Your task to perform on an android device: Open Wikipedia Image 0: 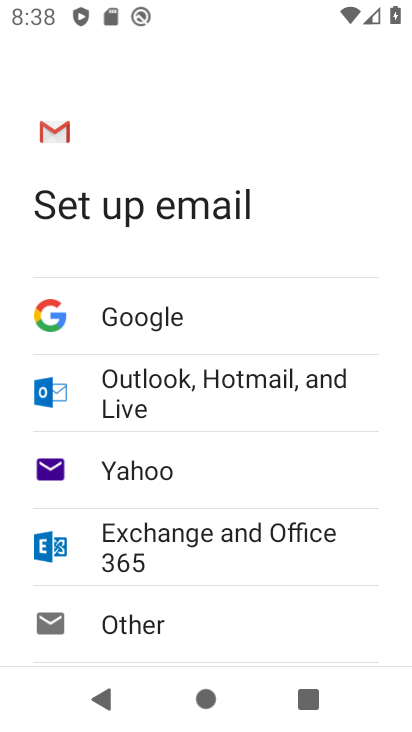
Step 0: press home button
Your task to perform on an android device: Open Wikipedia Image 1: 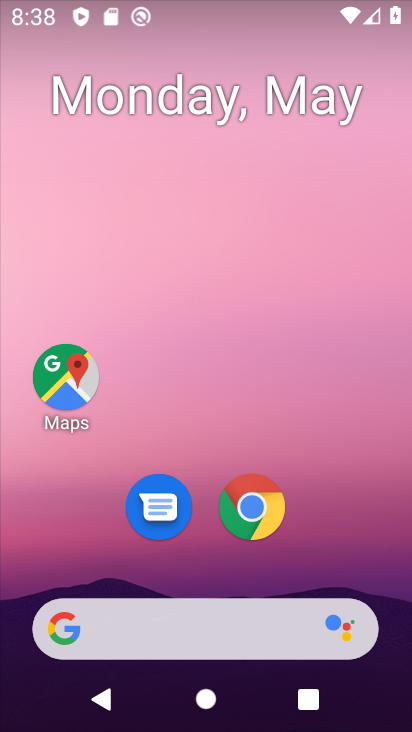
Step 1: click (260, 516)
Your task to perform on an android device: Open Wikipedia Image 2: 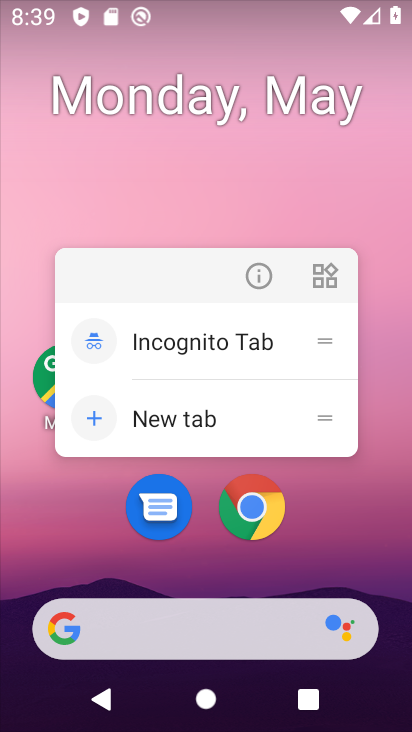
Step 2: click (256, 513)
Your task to perform on an android device: Open Wikipedia Image 3: 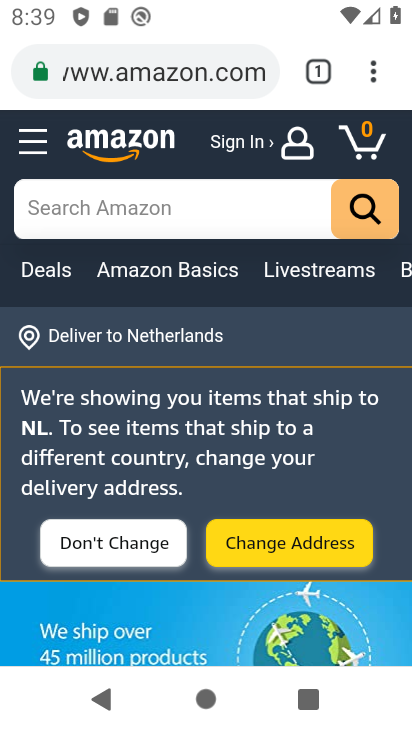
Step 3: click (216, 74)
Your task to perform on an android device: Open Wikipedia Image 4: 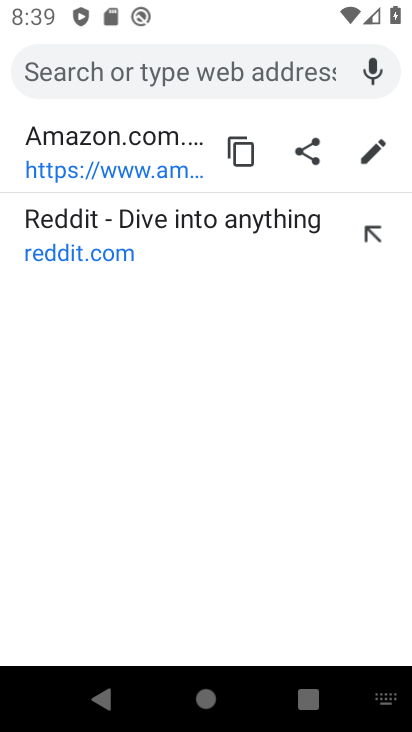
Step 4: type "wikipedia"
Your task to perform on an android device: Open Wikipedia Image 5: 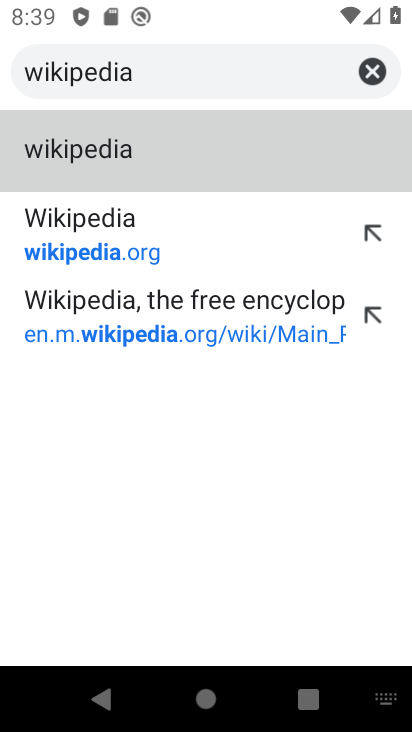
Step 5: click (111, 147)
Your task to perform on an android device: Open Wikipedia Image 6: 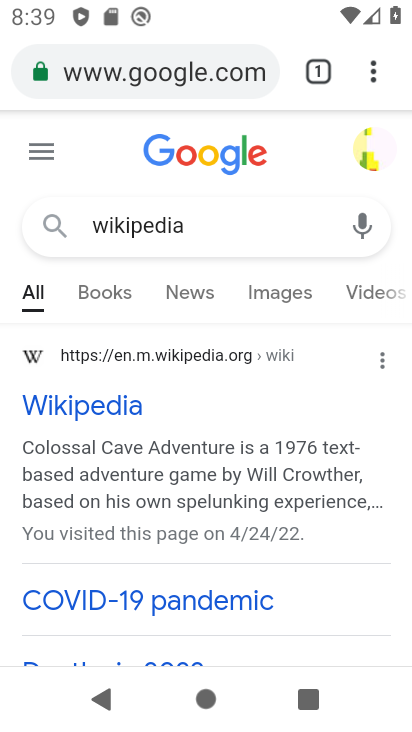
Step 6: task complete